Your task to perform on an android device: set an alarm Image 0: 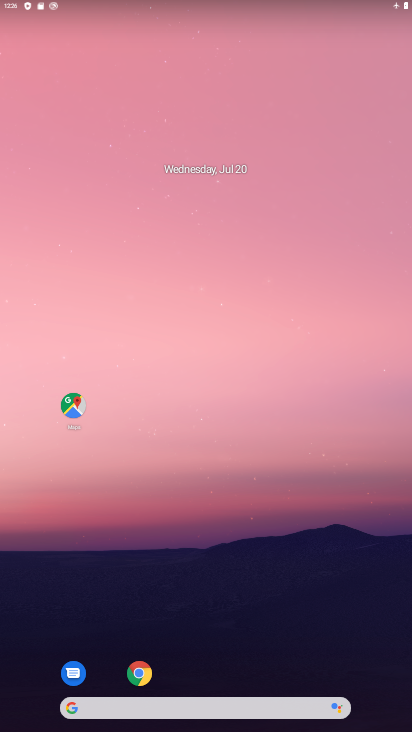
Step 0: drag from (281, 652) to (218, 215)
Your task to perform on an android device: set an alarm Image 1: 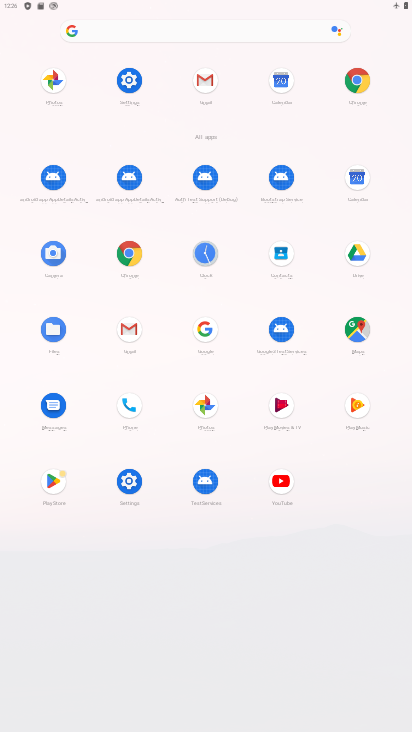
Step 1: click (209, 254)
Your task to perform on an android device: set an alarm Image 2: 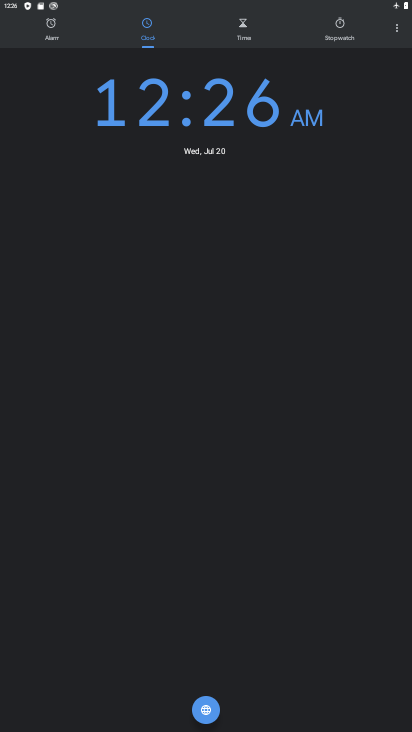
Step 2: click (48, 36)
Your task to perform on an android device: set an alarm Image 3: 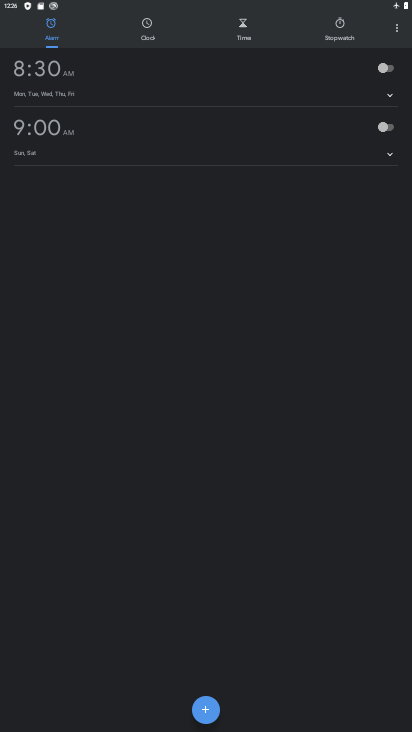
Step 3: click (210, 715)
Your task to perform on an android device: set an alarm Image 4: 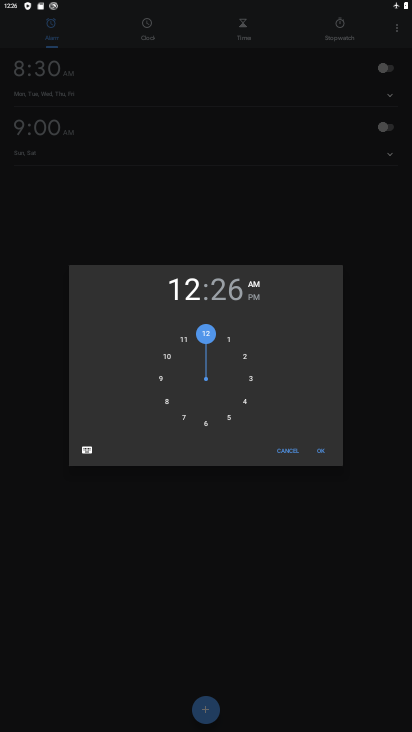
Step 4: click (321, 450)
Your task to perform on an android device: set an alarm Image 5: 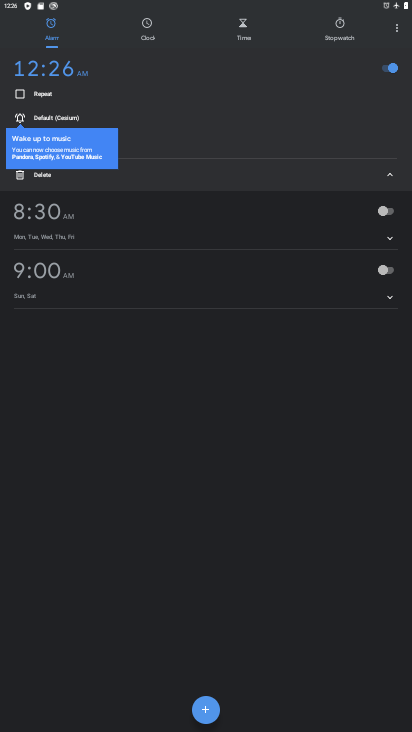
Step 5: task complete